Your task to perform on an android device: Go to ESPN.com Image 0: 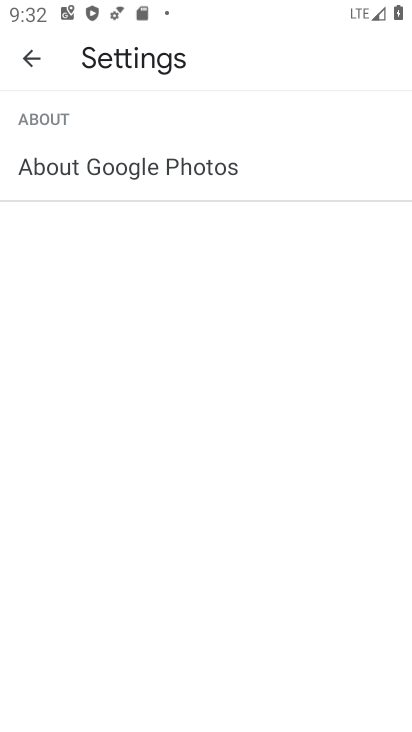
Step 0: press home button
Your task to perform on an android device: Go to ESPN.com Image 1: 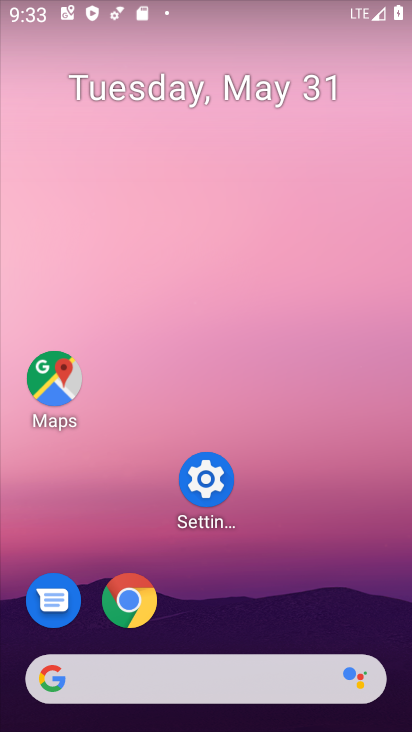
Step 1: click (126, 597)
Your task to perform on an android device: Go to ESPN.com Image 2: 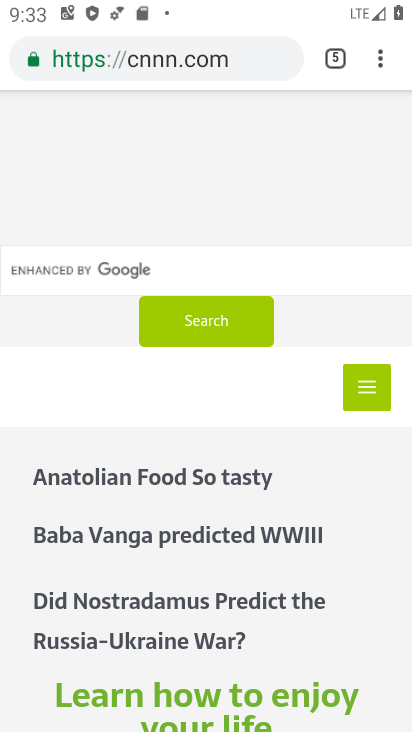
Step 2: click (182, 50)
Your task to perform on an android device: Go to ESPN.com Image 3: 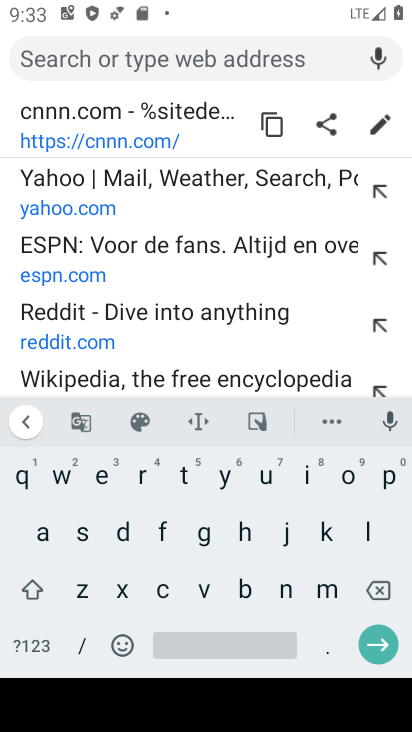
Step 3: click (99, 475)
Your task to perform on an android device: Go to ESPN.com Image 4: 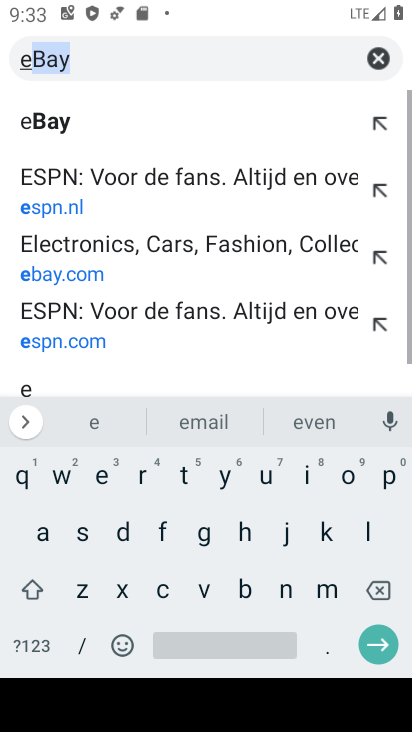
Step 4: click (82, 532)
Your task to perform on an android device: Go to ESPN.com Image 5: 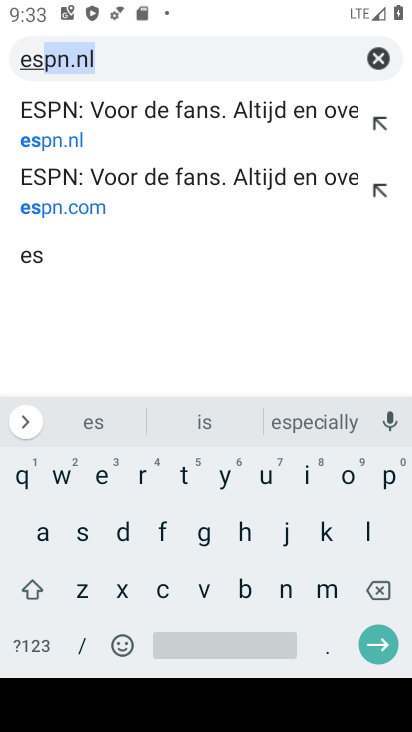
Step 5: click (172, 64)
Your task to perform on an android device: Go to ESPN.com Image 6: 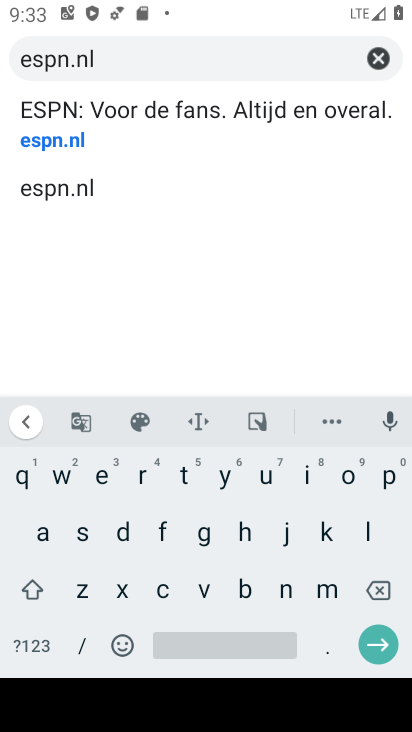
Step 6: click (386, 584)
Your task to perform on an android device: Go to ESPN.com Image 7: 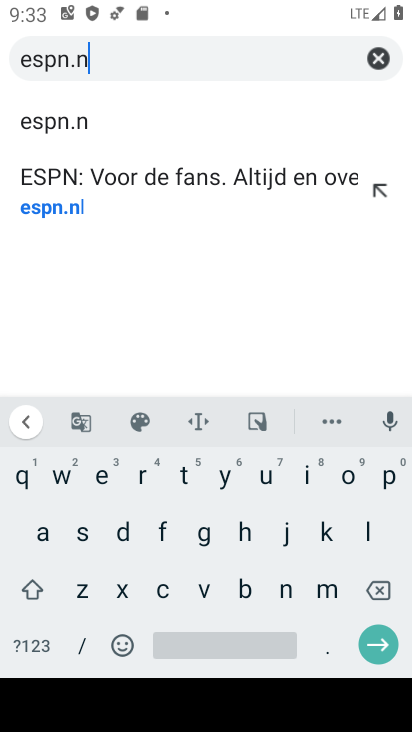
Step 7: click (386, 584)
Your task to perform on an android device: Go to ESPN.com Image 8: 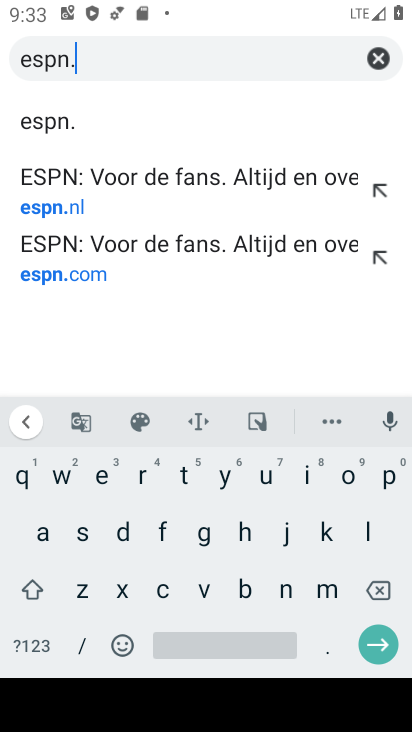
Step 8: click (386, 584)
Your task to perform on an android device: Go to ESPN.com Image 9: 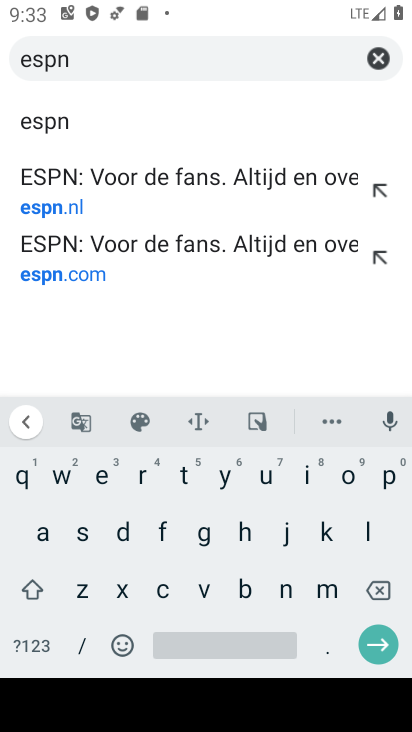
Step 9: click (327, 649)
Your task to perform on an android device: Go to ESPN.com Image 10: 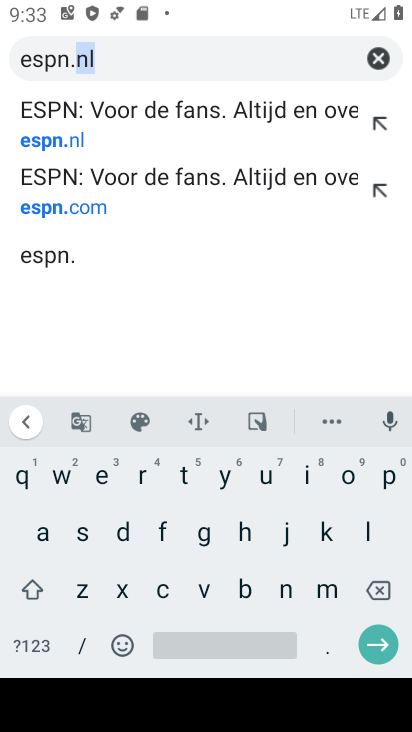
Step 10: click (159, 582)
Your task to perform on an android device: Go to ESPN.com Image 11: 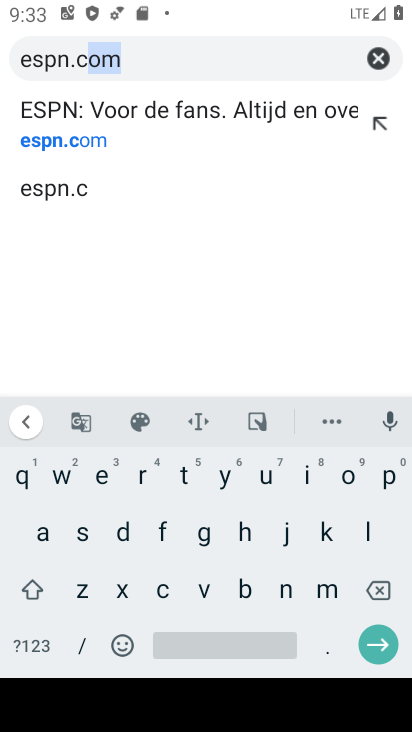
Step 11: click (351, 479)
Your task to perform on an android device: Go to ESPN.com Image 12: 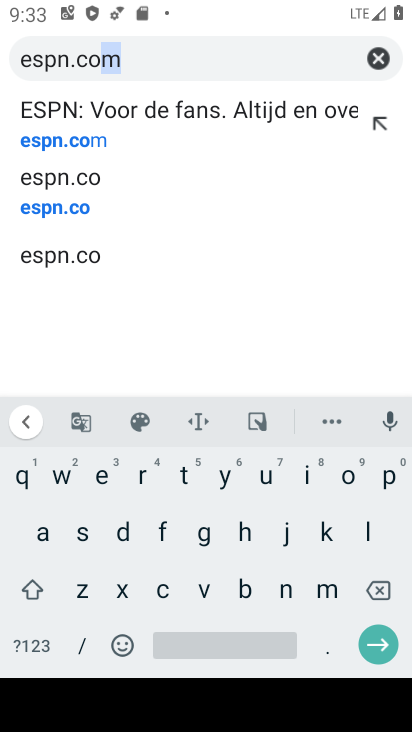
Step 12: click (153, 70)
Your task to perform on an android device: Go to ESPN.com Image 13: 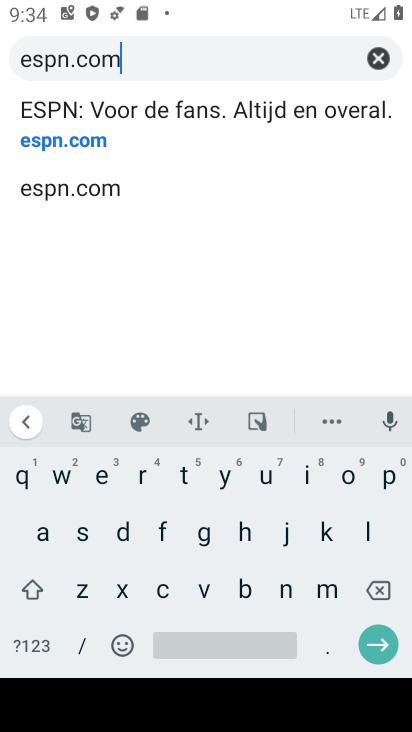
Step 13: click (378, 641)
Your task to perform on an android device: Go to ESPN.com Image 14: 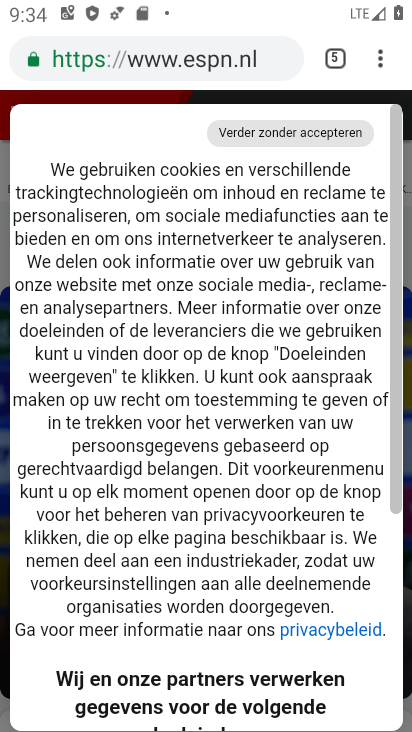
Step 14: task complete